Your task to perform on an android device: Open display settings Image 0: 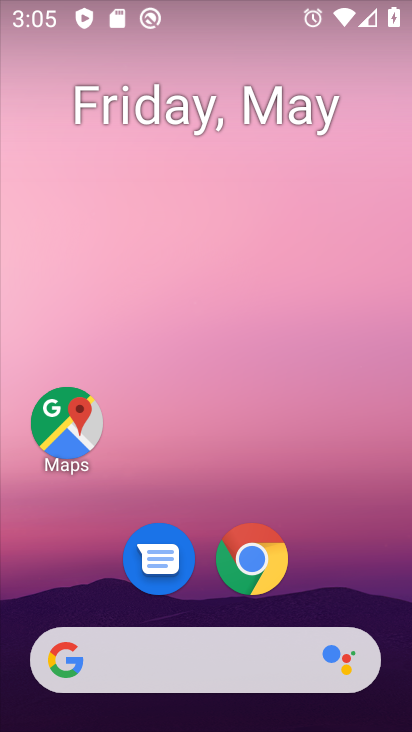
Step 0: drag from (368, 569) to (176, 132)
Your task to perform on an android device: Open display settings Image 1: 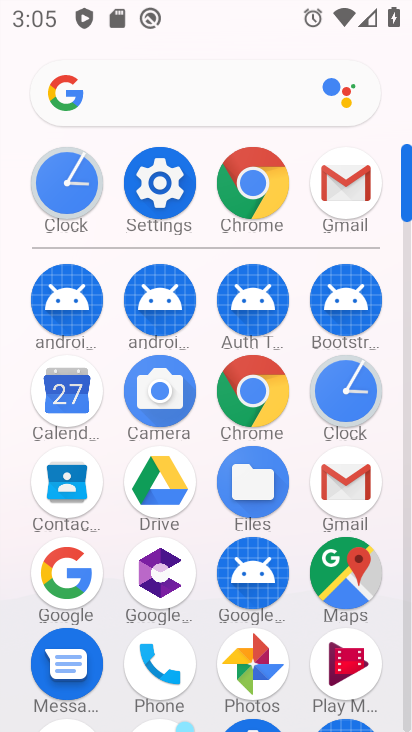
Step 1: click (149, 230)
Your task to perform on an android device: Open display settings Image 2: 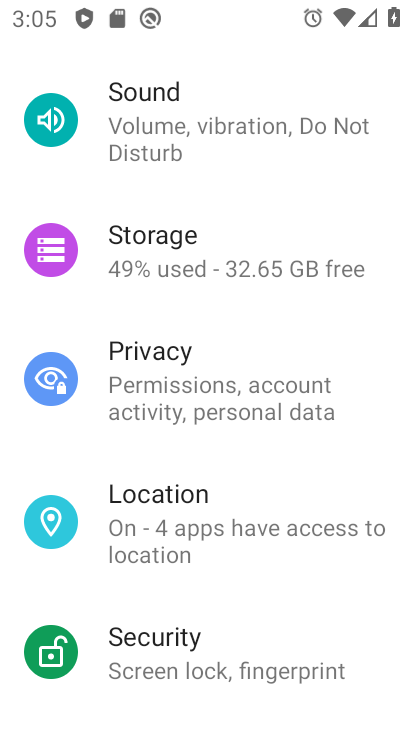
Step 2: drag from (238, 262) to (246, 668)
Your task to perform on an android device: Open display settings Image 3: 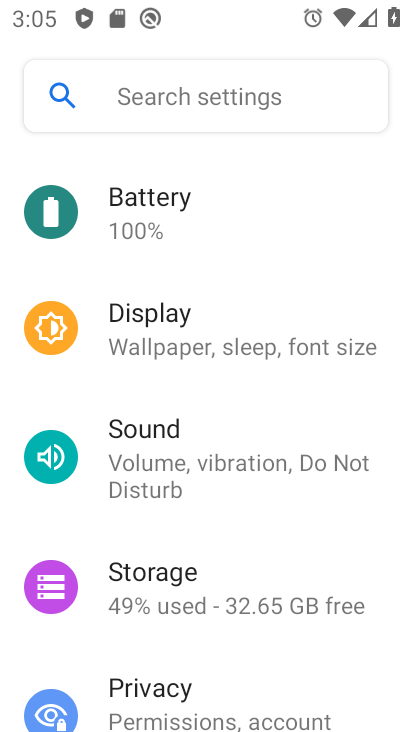
Step 3: click (205, 355)
Your task to perform on an android device: Open display settings Image 4: 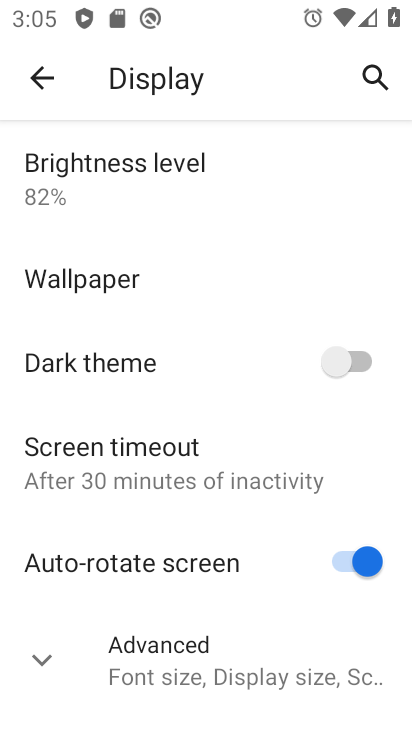
Step 4: task complete